Your task to perform on an android device: make emails show in primary in the gmail app Image 0: 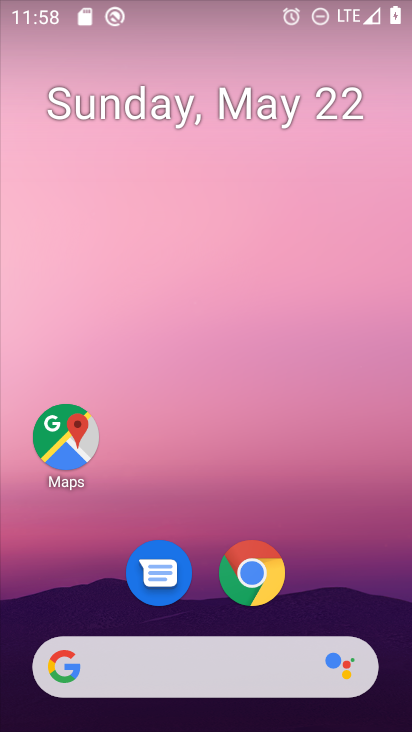
Step 0: drag from (329, 602) to (339, 56)
Your task to perform on an android device: make emails show in primary in the gmail app Image 1: 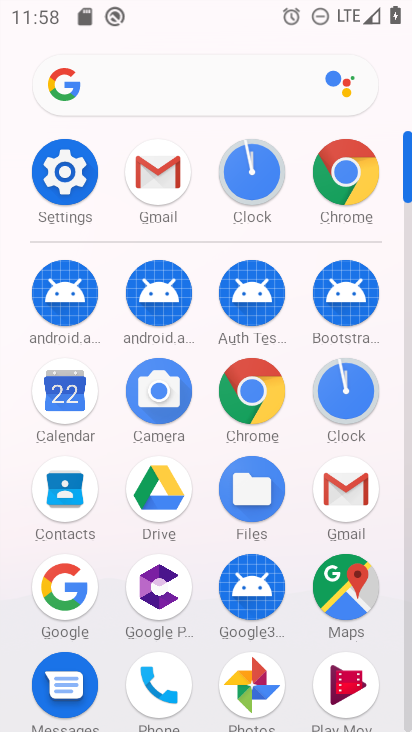
Step 1: click (358, 478)
Your task to perform on an android device: make emails show in primary in the gmail app Image 2: 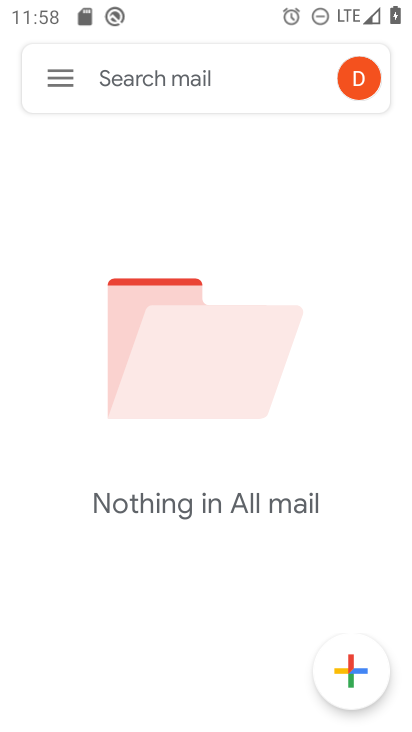
Step 2: click (70, 88)
Your task to perform on an android device: make emails show in primary in the gmail app Image 3: 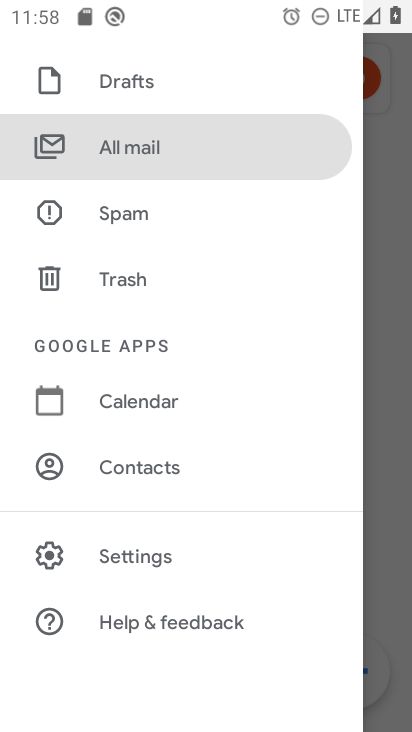
Step 3: click (145, 548)
Your task to perform on an android device: make emails show in primary in the gmail app Image 4: 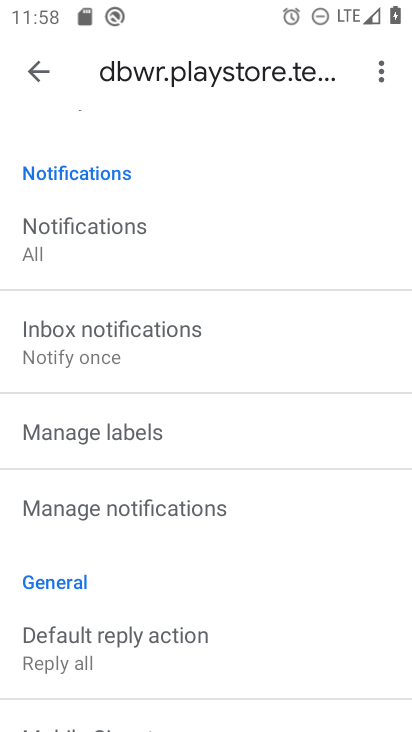
Step 4: drag from (191, 334) to (284, 657)
Your task to perform on an android device: make emails show in primary in the gmail app Image 5: 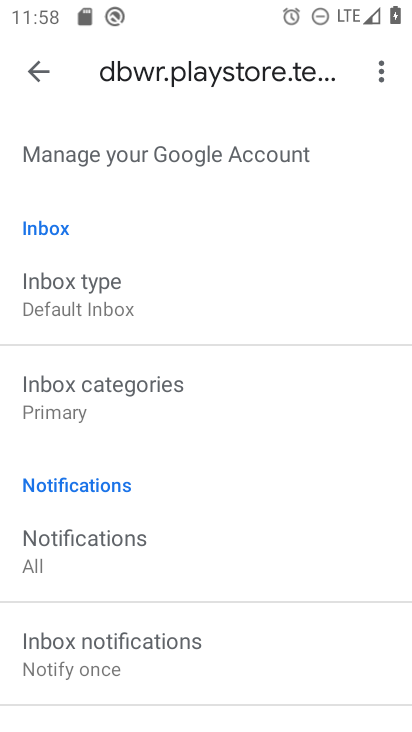
Step 5: click (199, 277)
Your task to perform on an android device: make emails show in primary in the gmail app Image 6: 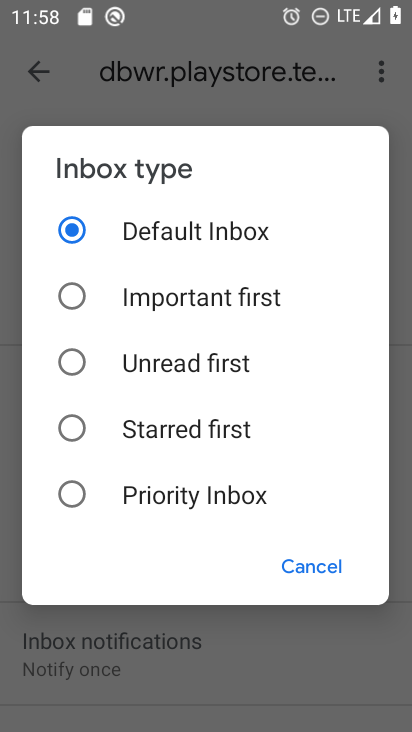
Step 6: click (164, 243)
Your task to perform on an android device: make emails show in primary in the gmail app Image 7: 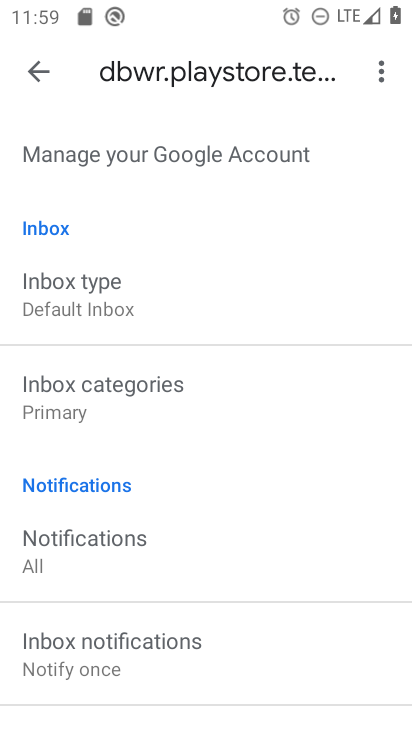
Step 7: task complete